Your task to perform on an android device: find snoozed emails in the gmail app Image 0: 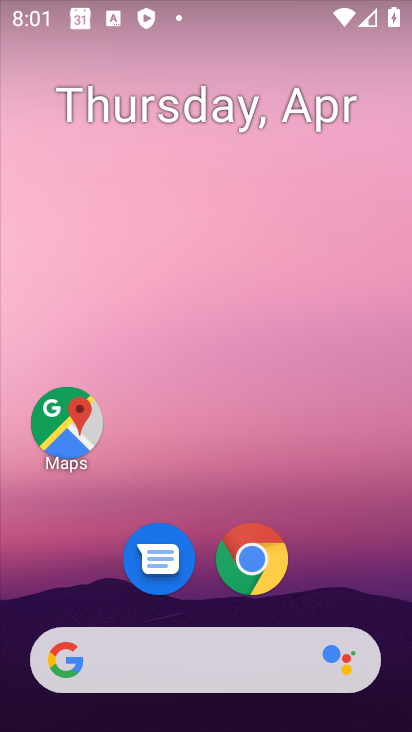
Step 0: drag from (269, 711) to (265, 79)
Your task to perform on an android device: find snoozed emails in the gmail app Image 1: 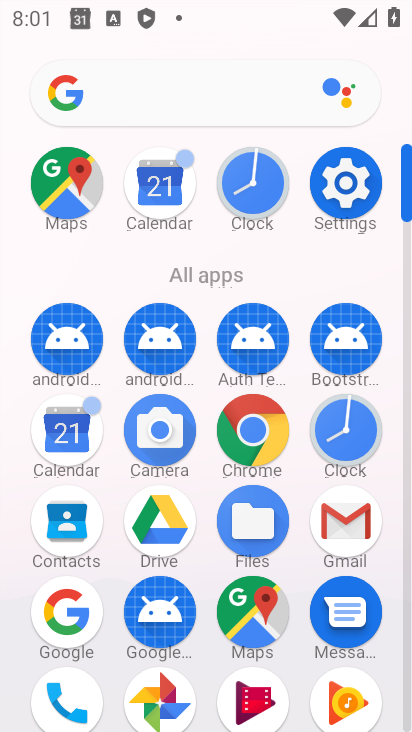
Step 1: click (337, 512)
Your task to perform on an android device: find snoozed emails in the gmail app Image 2: 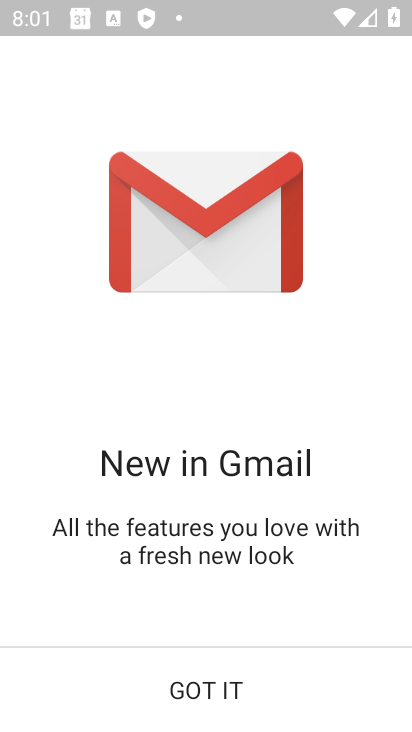
Step 2: click (204, 687)
Your task to perform on an android device: find snoozed emails in the gmail app Image 3: 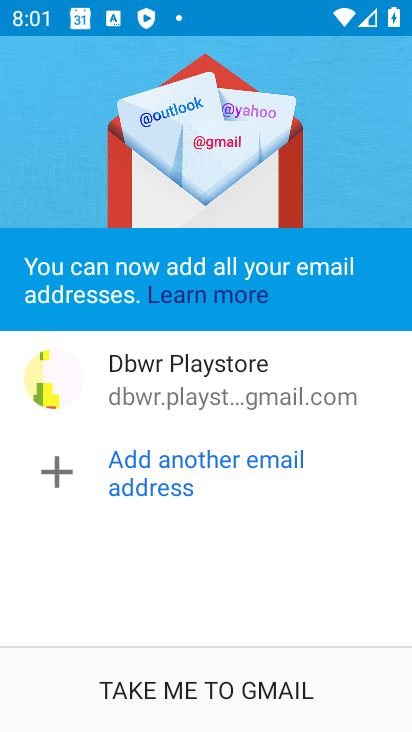
Step 3: click (204, 687)
Your task to perform on an android device: find snoozed emails in the gmail app Image 4: 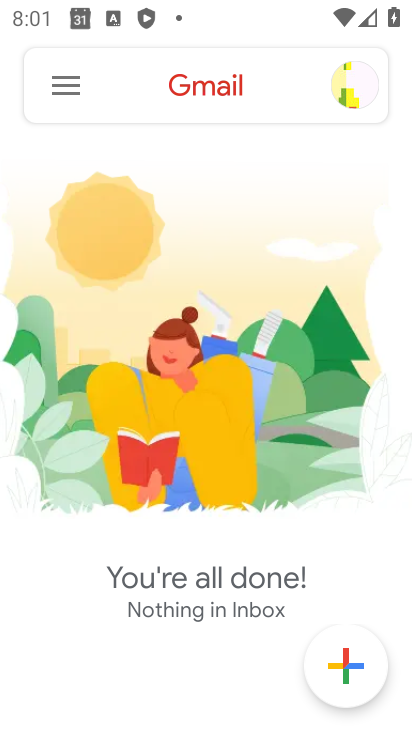
Step 4: click (63, 93)
Your task to perform on an android device: find snoozed emails in the gmail app Image 5: 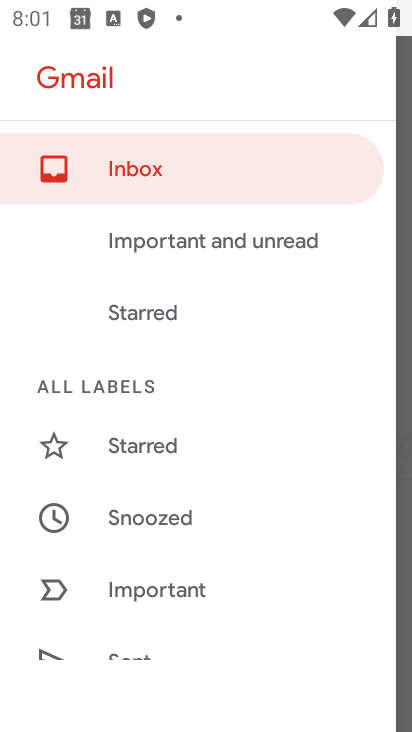
Step 5: drag from (270, 599) to (236, 63)
Your task to perform on an android device: find snoozed emails in the gmail app Image 6: 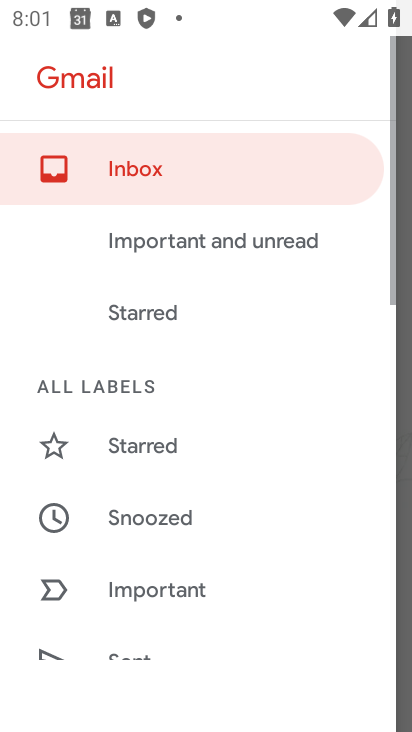
Step 6: drag from (242, 471) to (237, 5)
Your task to perform on an android device: find snoozed emails in the gmail app Image 7: 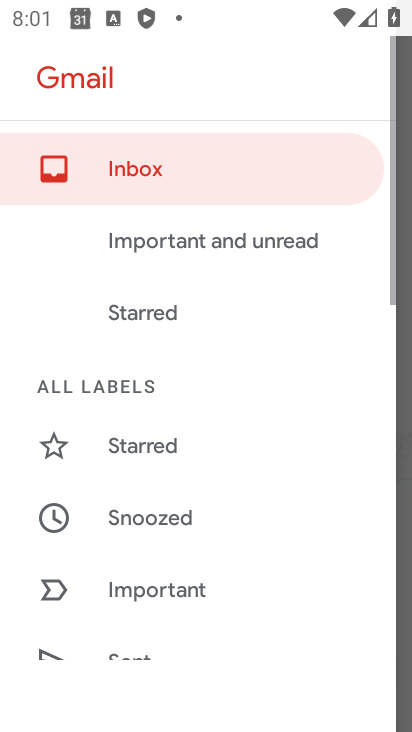
Step 7: drag from (216, 584) to (171, 82)
Your task to perform on an android device: find snoozed emails in the gmail app Image 8: 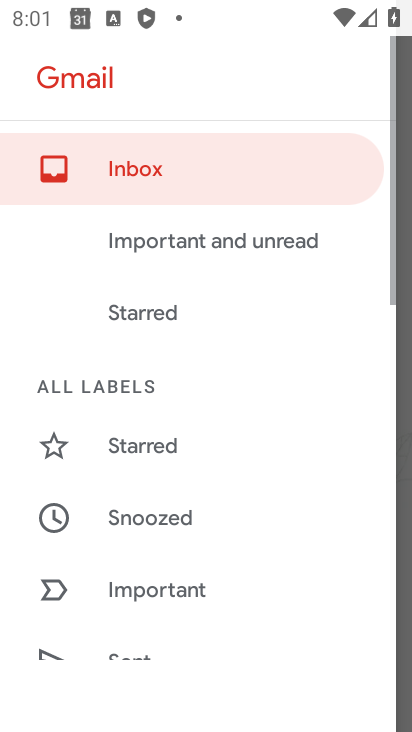
Step 8: drag from (264, 620) to (200, 64)
Your task to perform on an android device: find snoozed emails in the gmail app Image 9: 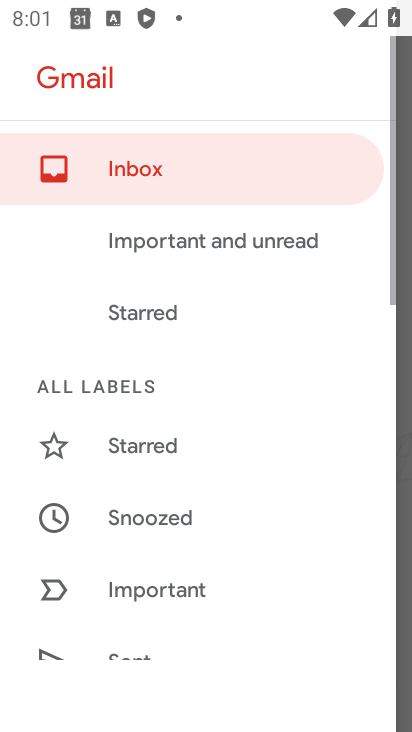
Step 9: drag from (199, 436) to (199, 0)
Your task to perform on an android device: find snoozed emails in the gmail app Image 10: 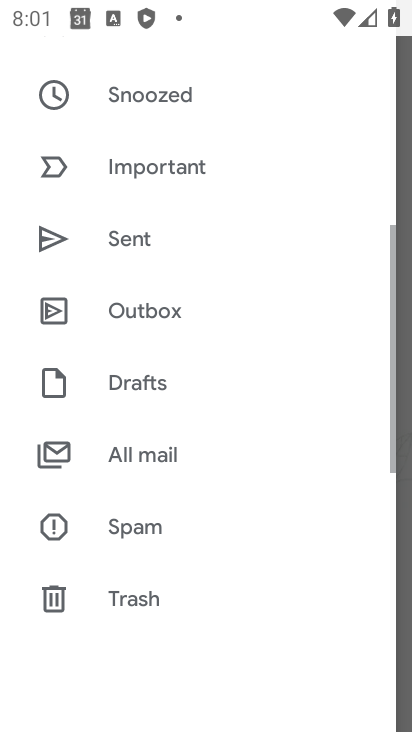
Step 10: drag from (164, 538) to (205, 104)
Your task to perform on an android device: find snoozed emails in the gmail app Image 11: 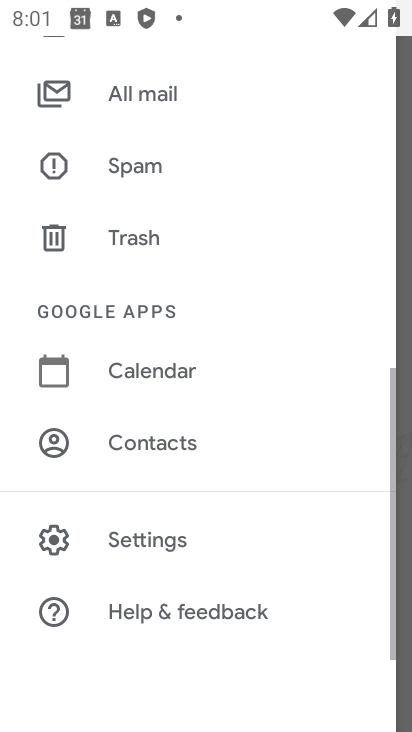
Step 11: click (210, 101)
Your task to perform on an android device: find snoozed emails in the gmail app Image 12: 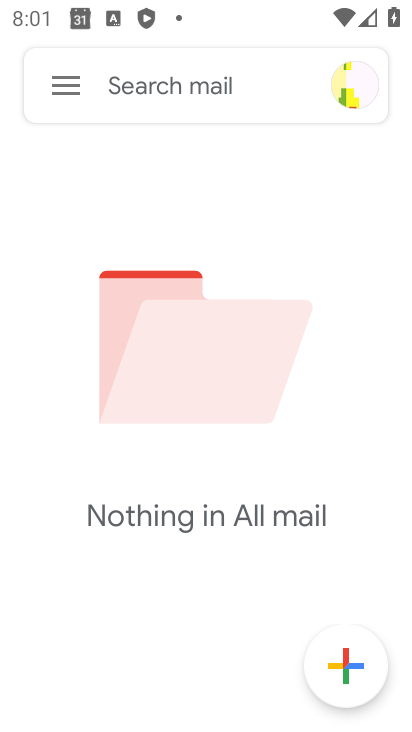
Step 12: click (53, 95)
Your task to perform on an android device: find snoozed emails in the gmail app Image 13: 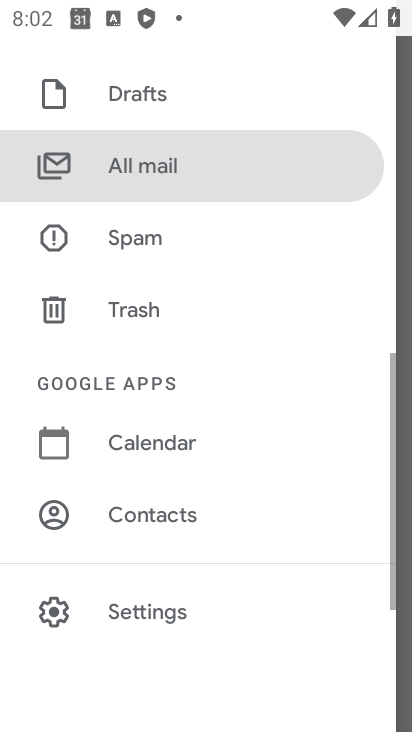
Step 13: drag from (302, 202) to (299, 620)
Your task to perform on an android device: find snoozed emails in the gmail app Image 14: 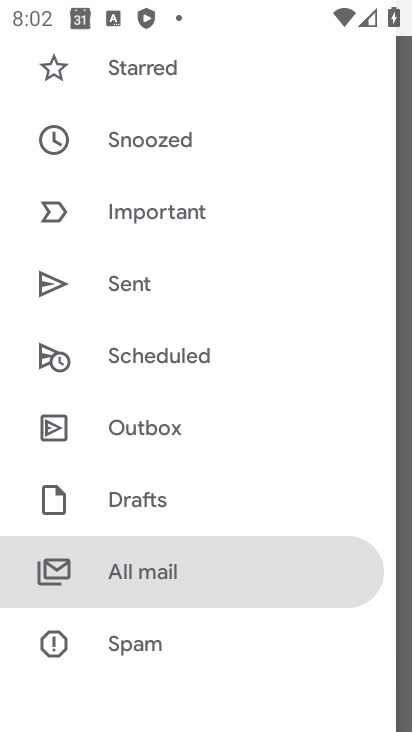
Step 14: click (227, 149)
Your task to perform on an android device: find snoozed emails in the gmail app Image 15: 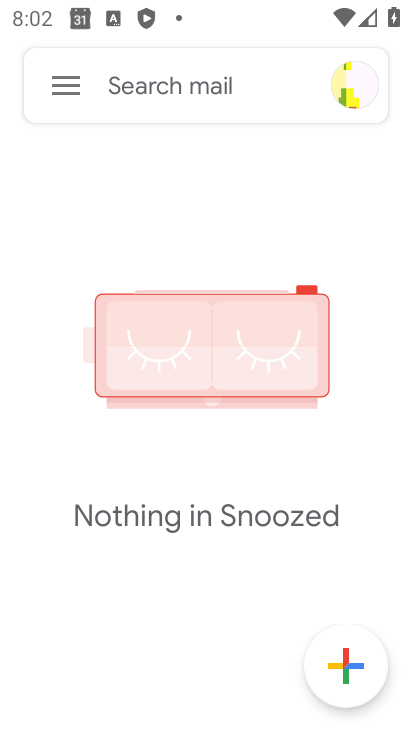
Step 15: task complete